Your task to perform on an android device: Open Google Chrome and click the shortcut for Amazon.com Image 0: 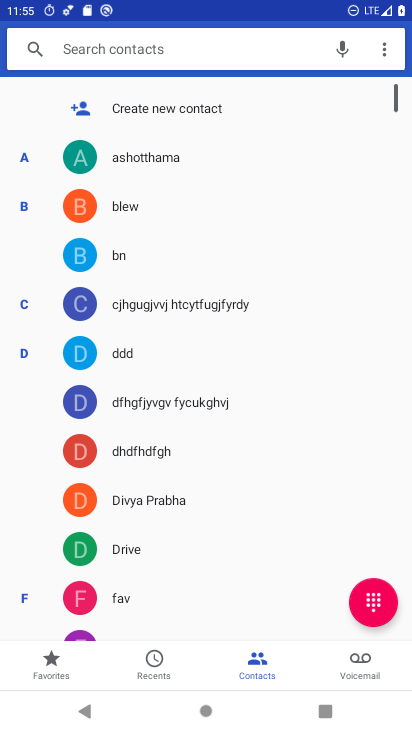
Step 0: press home button
Your task to perform on an android device: Open Google Chrome and click the shortcut for Amazon.com Image 1: 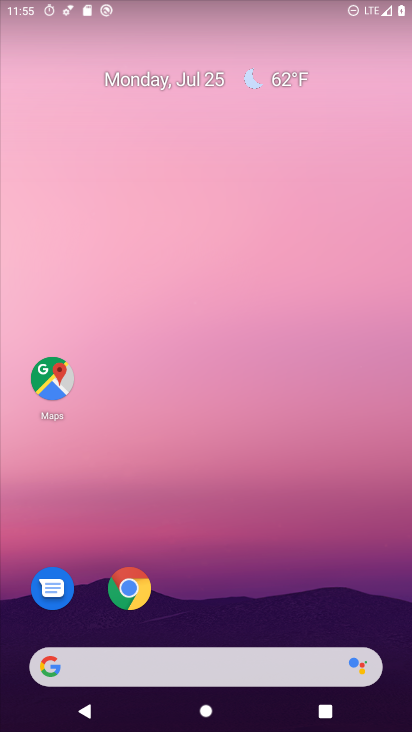
Step 1: click (123, 590)
Your task to perform on an android device: Open Google Chrome and click the shortcut for Amazon.com Image 2: 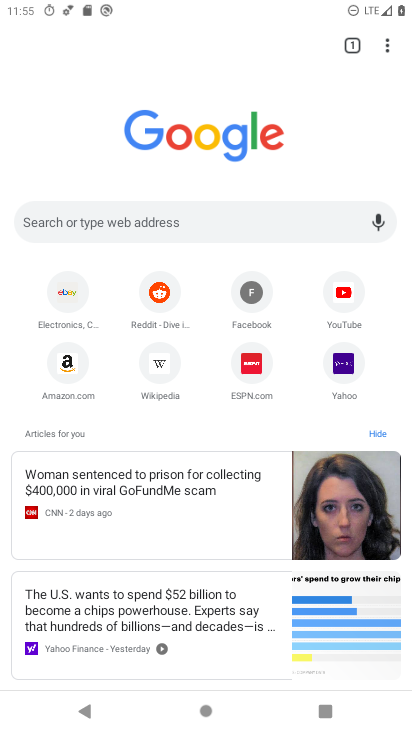
Step 2: click (67, 358)
Your task to perform on an android device: Open Google Chrome and click the shortcut for Amazon.com Image 3: 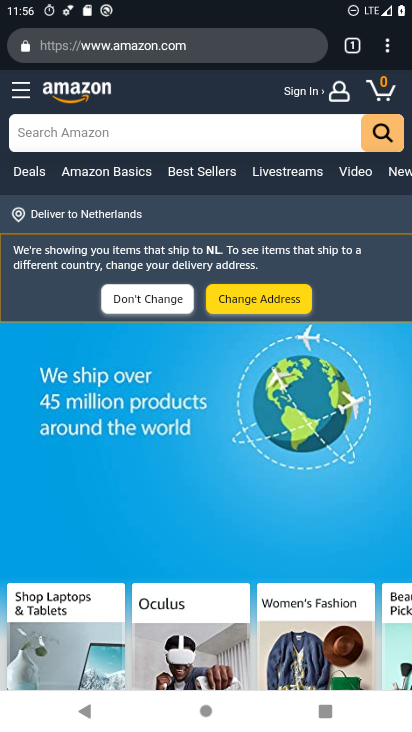
Step 3: task complete